Your task to perform on an android device: Go to Reddit.com Image 0: 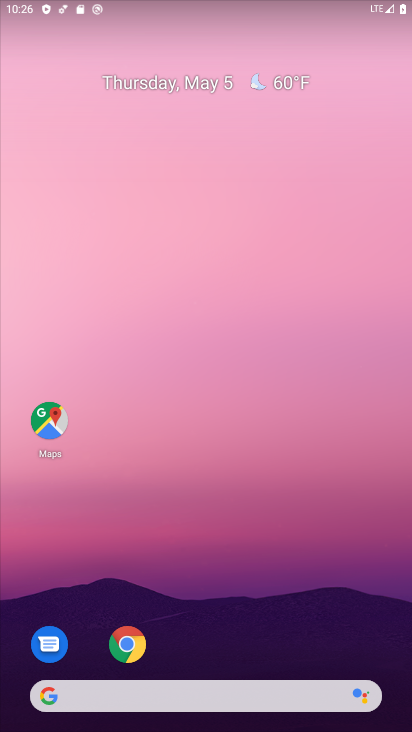
Step 0: drag from (336, 598) to (324, 58)
Your task to perform on an android device: Go to Reddit.com Image 1: 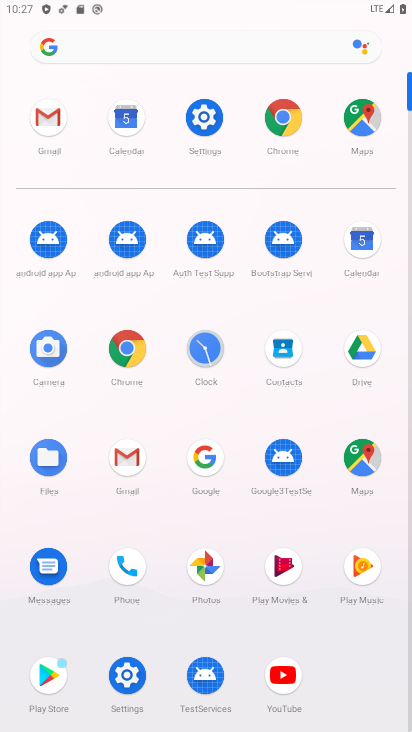
Step 1: click (138, 345)
Your task to perform on an android device: Go to Reddit.com Image 2: 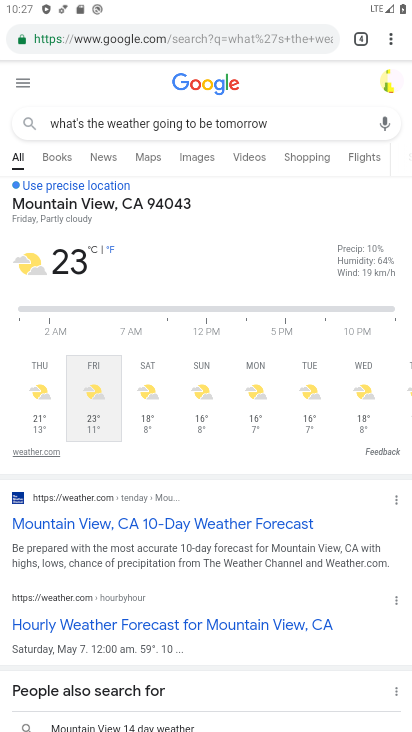
Step 2: click (227, 40)
Your task to perform on an android device: Go to Reddit.com Image 3: 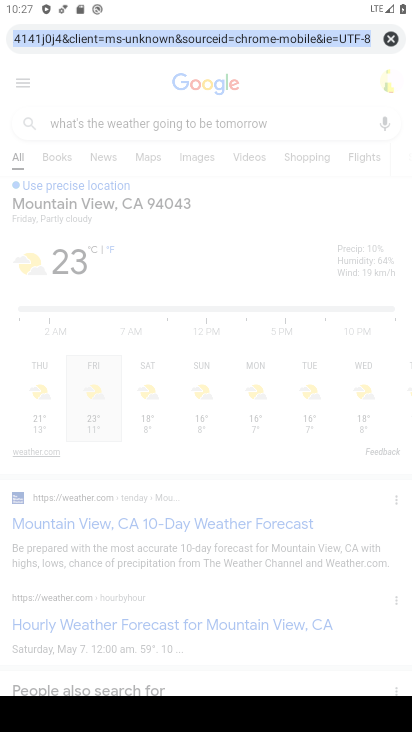
Step 3: click (389, 38)
Your task to perform on an android device: Go to Reddit.com Image 4: 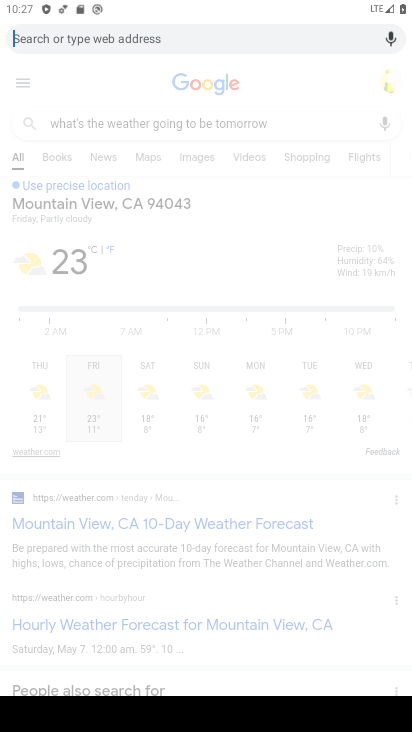
Step 4: click (251, 37)
Your task to perform on an android device: Go to Reddit.com Image 5: 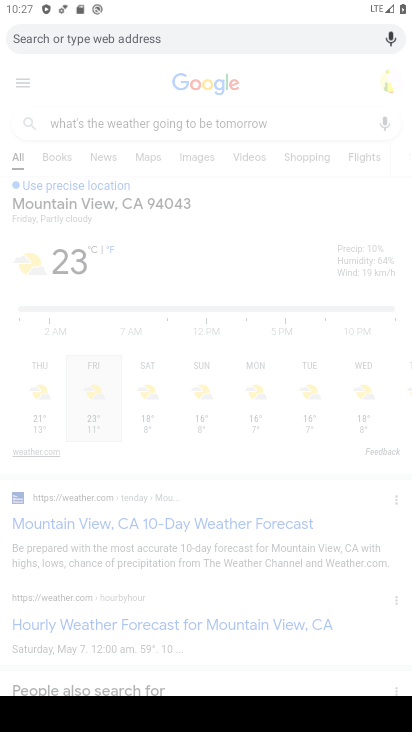
Step 5: type "reddit.com"
Your task to perform on an android device: Go to Reddit.com Image 6: 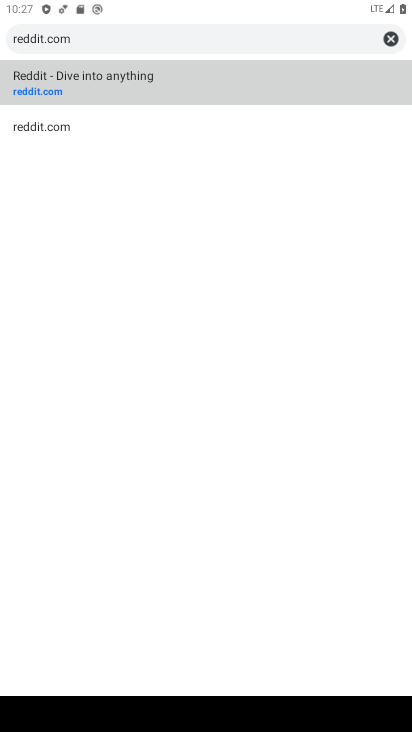
Step 6: click (148, 76)
Your task to perform on an android device: Go to Reddit.com Image 7: 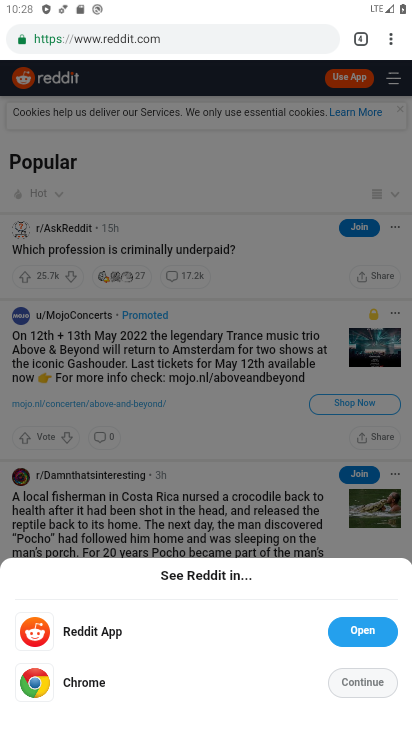
Step 7: task complete